Your task to perform on an android device: Open battery settings Image 0: 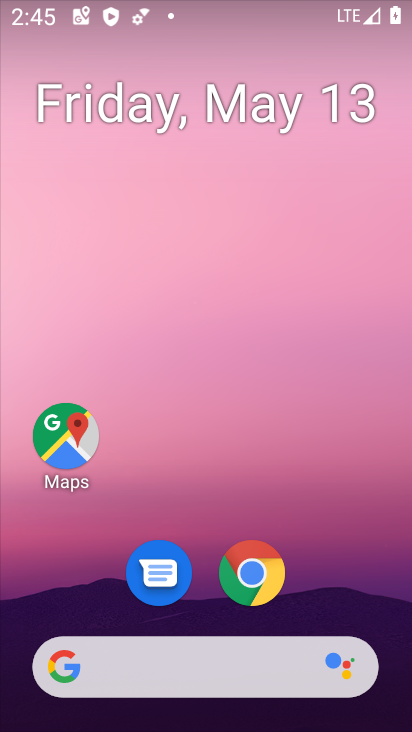
Step 0: drag from (94, 638) to (280, 171)
Your task to perform on an android device: Open battery settings Image 1: 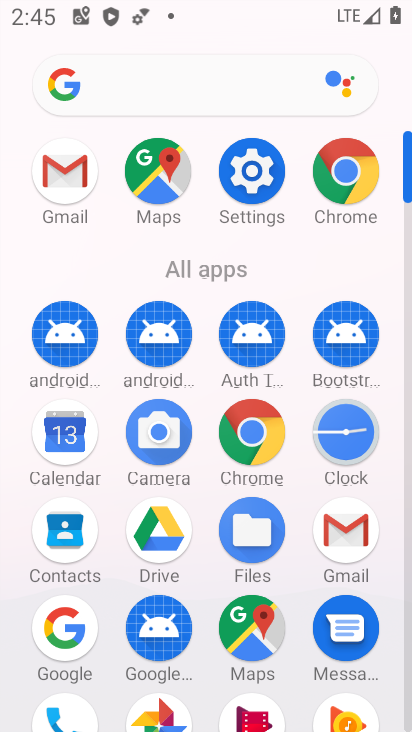
Step 1: drag from (167, 650) to (239, 335)
Your task to perform on an android device: Open battery settings Image 2: 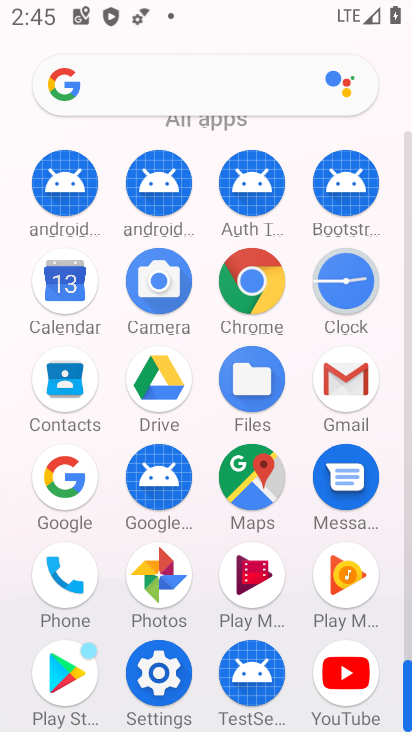
Step 2: click (159, 666)
Your task to perform on an android device: Open battery settings Image 3: 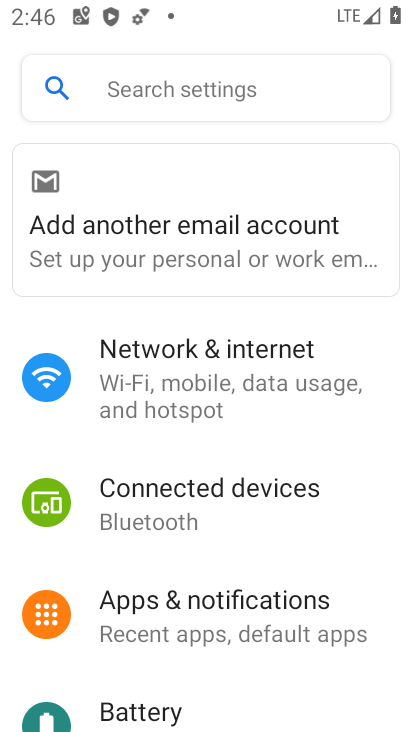
Step 3: drag from (162, 685) to (307, 333)
Your task to perform on an android device: Open battery settings Image 4: 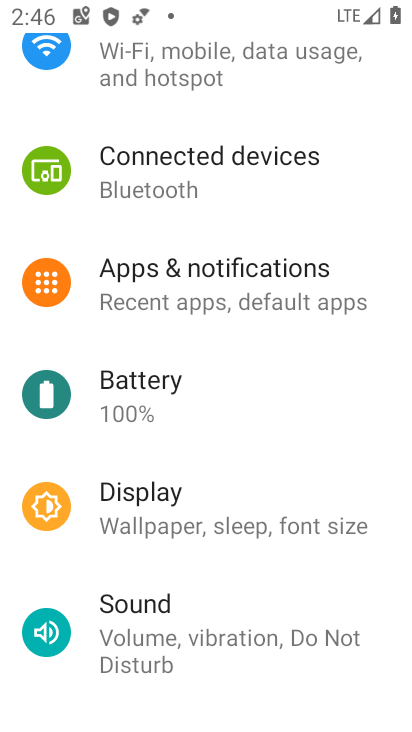
Step 4: click (161, 402)
Your task to perform on an android device: Open battery settings Image 5: 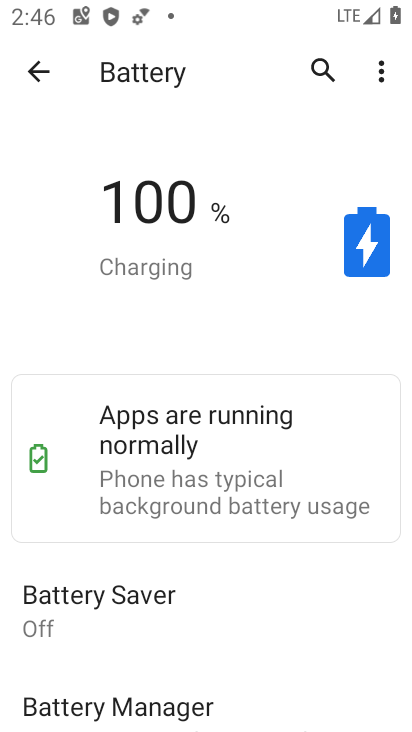
Step 5: task complete